Your task to perform on an android device: Open sound settings Image 0: 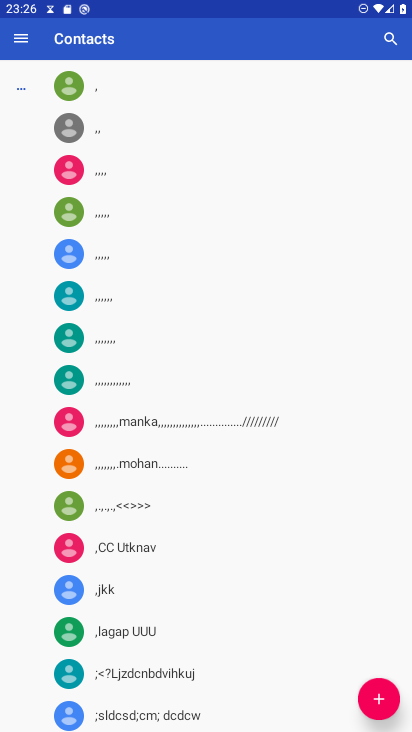
Step 0: press home button
Your task to perform on an android device: Open sound settings Image 1: 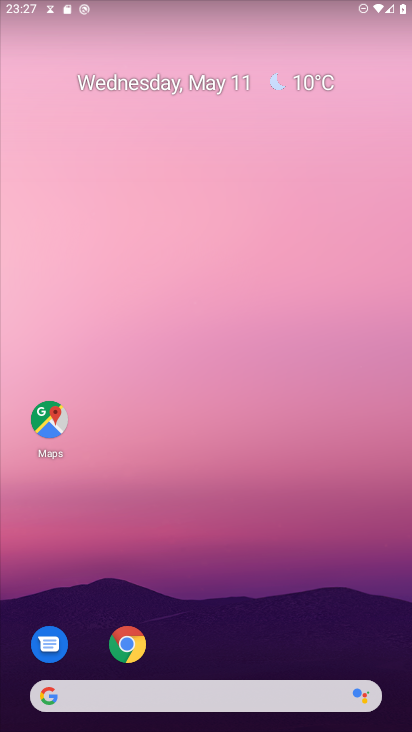
Step 1: drag from (392, 613) to (390, 133)
Your task to perform on an android device: Open sound settings Image 2: 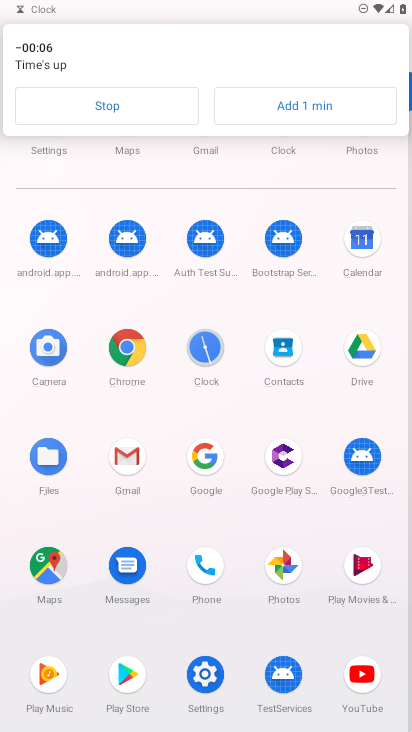
Step 2: click (211, 684)
Your task to perform on an android device: Open sound settings Image 3: 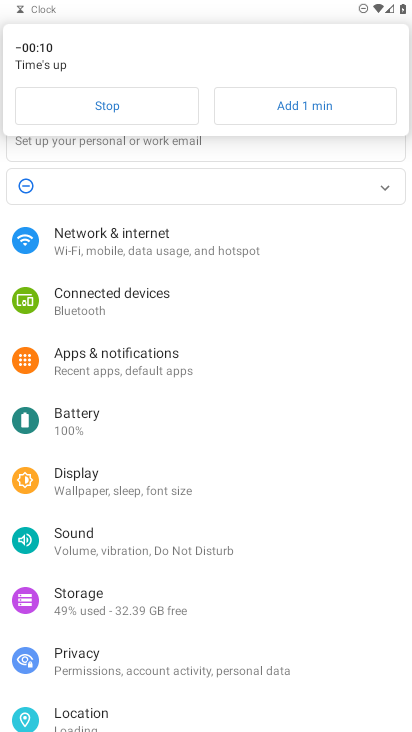
Step 3: click (94, 547)
Your task to perform on an android device: Open sound settings Image 4: 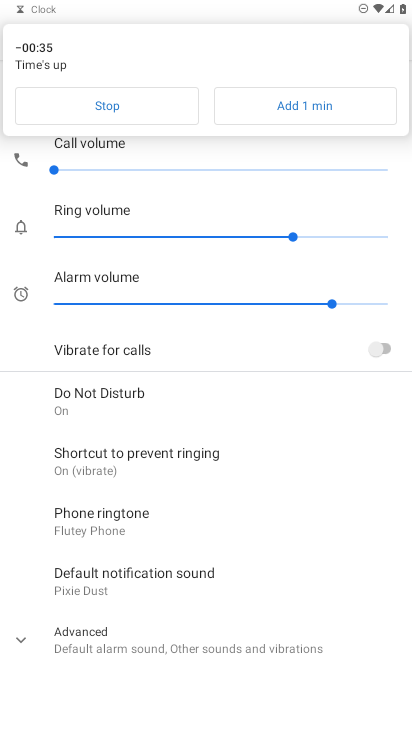
Step 4: task complete